Your task to perform on an android device: set the timer Image 0: 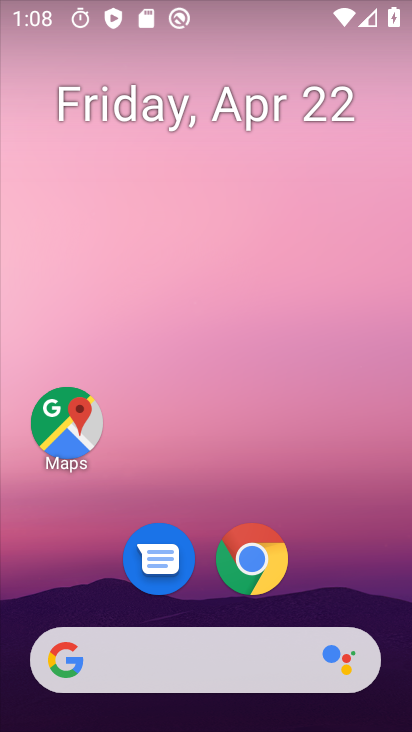
Step 0: drag from (355, 560) to (347, 189)
Your task to perform on an android device: set the timer Image 1: 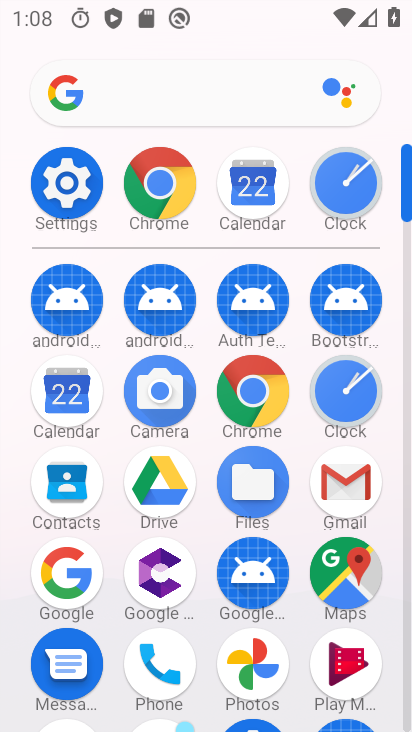
Step 1: click (363, 406)
Your task to perform on an android device: set the timer Image 2: 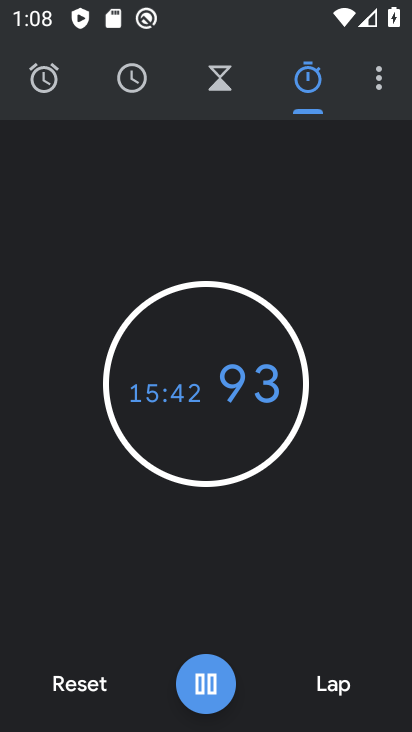
Step 2: click (230, 100)
Your task to perform on an android device: set the timer Image 3: 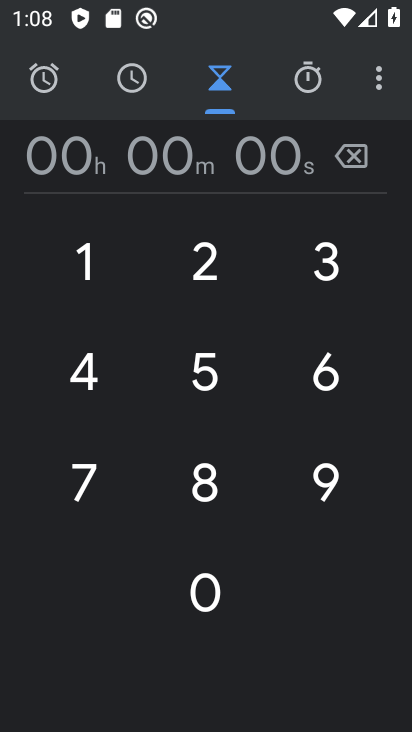
Step 3: click (215, 368)
Your task to perform on an android device: set the timer Image 4: 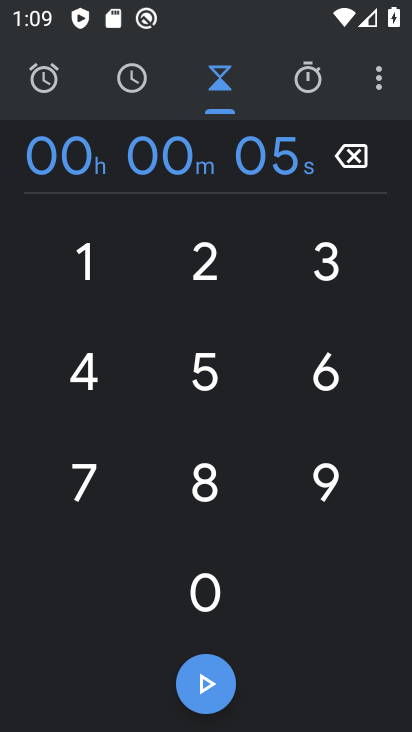
Step 4: click (226, 683)
Your task to perform on an android device: set the timer Image 5: 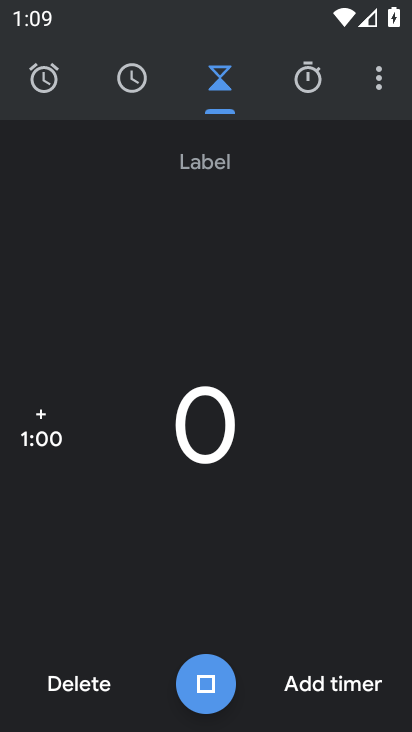
Step 5: task complete